Your task to perform on an android device: Go to accessibility settings Image 0: 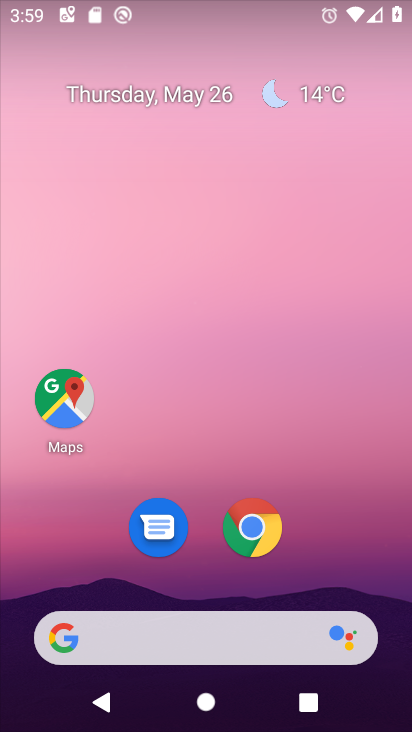
Step 0: drag from (354, 579) to (315, 144)
Your task to perform on an android device: Go to accessibility settings Image 1: 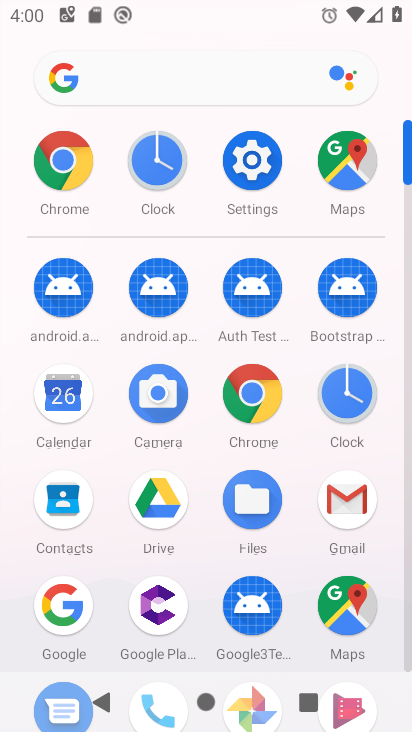
Step 1: click (264, 178)
Your task to perform on an android device: Go to accessibility settings Image 2: 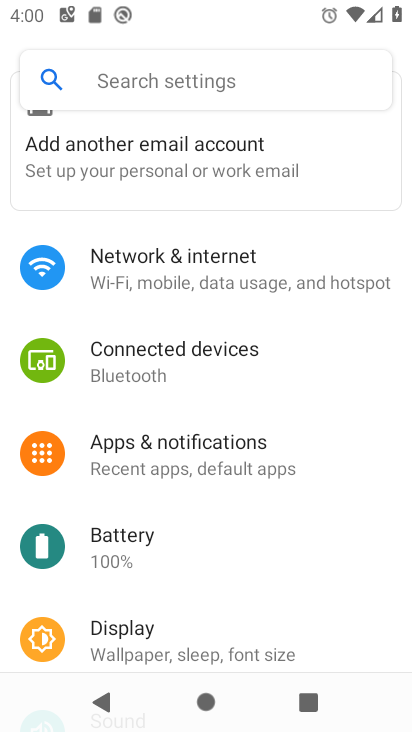
Step 2: drag from (226, 594) to (165, 173)
Your task to perform on an android device: Go to accessibility settings Image 3: 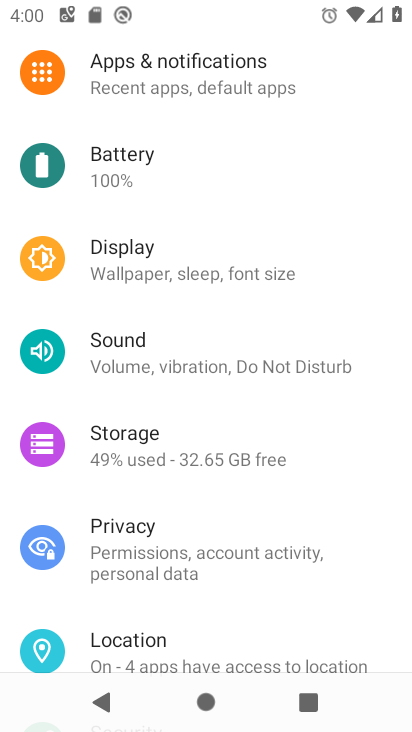
Step 3: drag from (195, 615) to (169, 222)
Your task to perform on an android device: Go to accessibility settings Image 4: 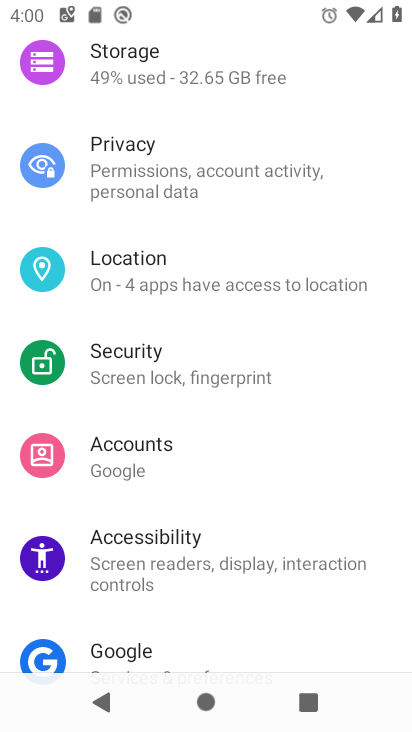
Step 4: click (202, 556)
Your task to perform on an android device: Go to accessibility settings Image 5: 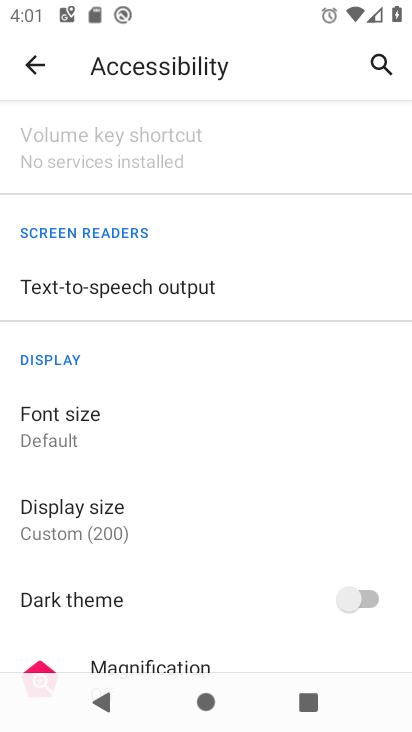
Step 5: task complete